Your task to perform on an android device: Search for duracell triple a on costco.com, select the first entry, and add it to the cart. Image 0: 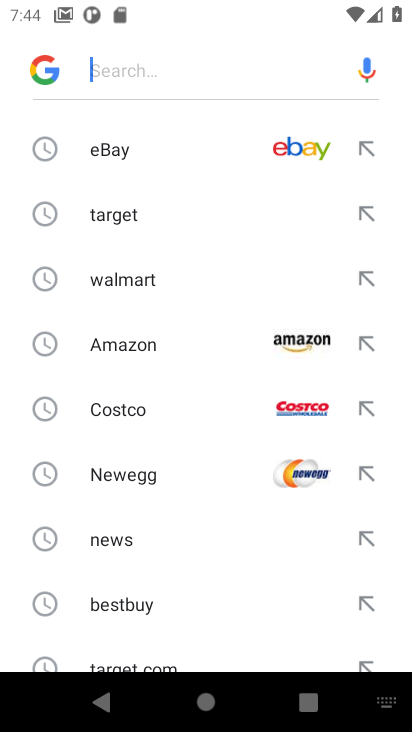
Step 0: click (159, 410)
Your task to perform on an android device: Search for duracell triple a on costco.com, select the first entry, and add it to the cart. Image 1: 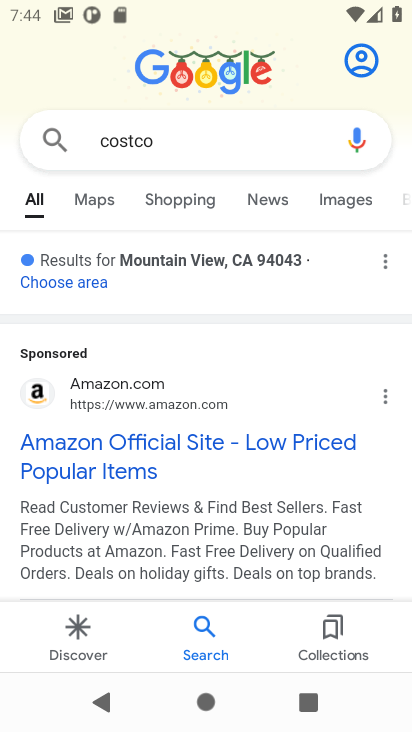
Step 1: drag from (169, 472) to (168, 197)
Your task to perform on an android device: Search for duracell triple a on costco.com, select the first entry, and add it to the cart. Image 2: 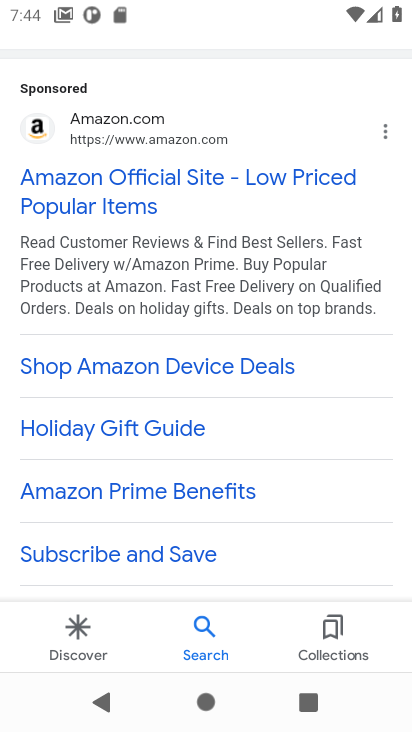
Step 2: drag from (197, 162) to (291, 721)
Your task to perform on an android device: Search for duracell triple a on costco.com, select the first entry, and add it to the cart. Image 3: 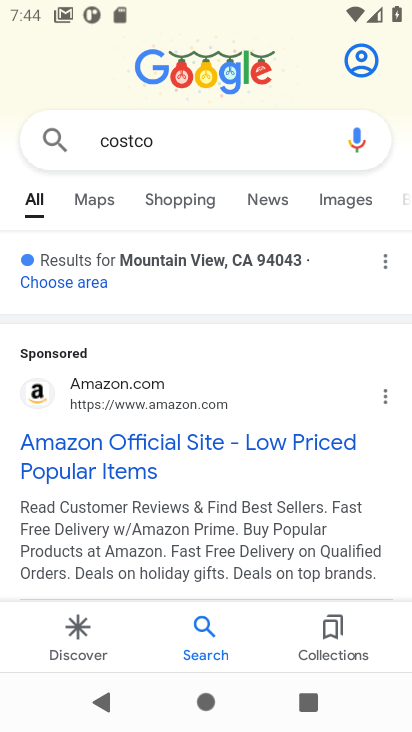
Step 3: click (197, 143)
Your task to perform on an android device: Search for duracell triple a on costco.com, select the first entry, and add it to the cart. Image 4: 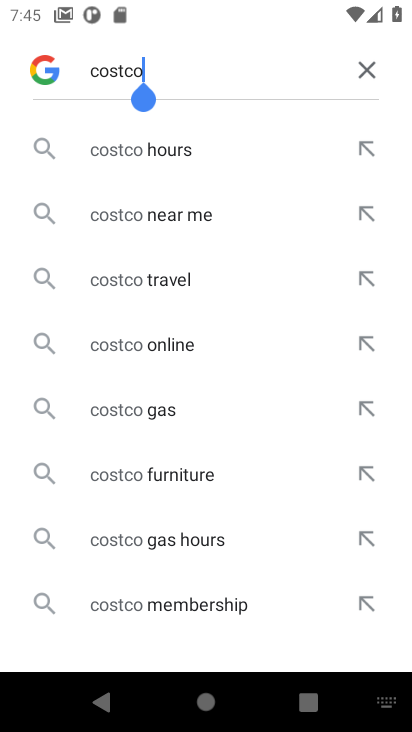
Step 4: click (148, 226)
Your task to perform on an android device: Search for duracell triple a on costco.com, select the first entry, and add it to the cart. Image 5: 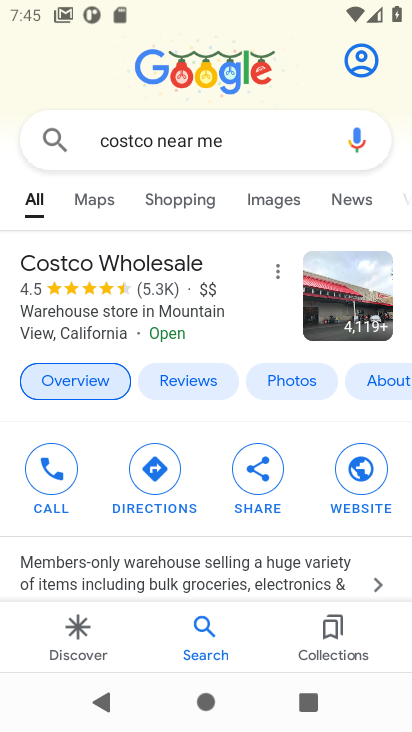
Step 5: click (364, 467)
Your task to perform on an android device: Search for duracell triple a on costco.com, select the first entry, and add it to the cart. Image 6: 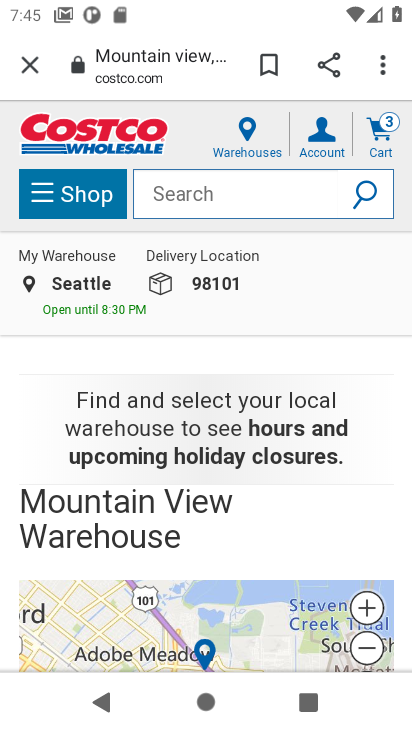
Step 6: drag from (140, 553) to (140, 465)
Your task to perform on an android device: Search for duracell triple a on costco.com, select the first entry, and add it to the cart. Image 7: 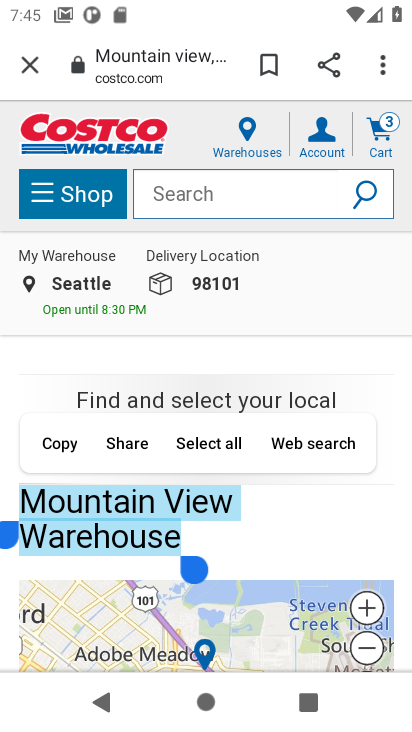
Step 7: click (192, 205)
Your task to perform on an android device: Search for duracell triple a on costco.com, select the first entry, and add it to the cart. Image 8: 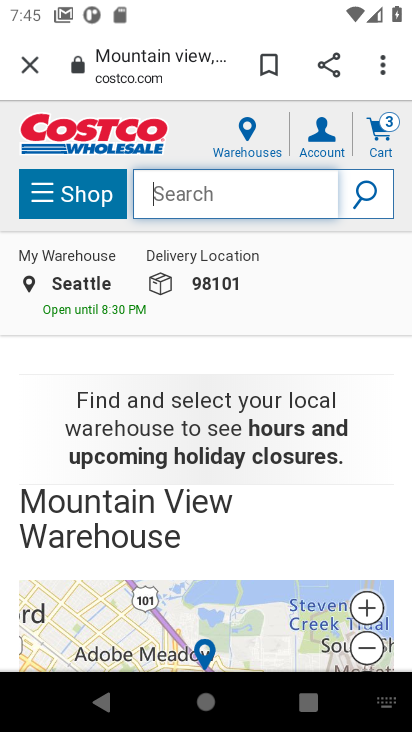
Step 8: type ""
Your task to perform on an android device: Search for duracell triple a on costco.com, select the first entry, and add it to the cart. Image 9: 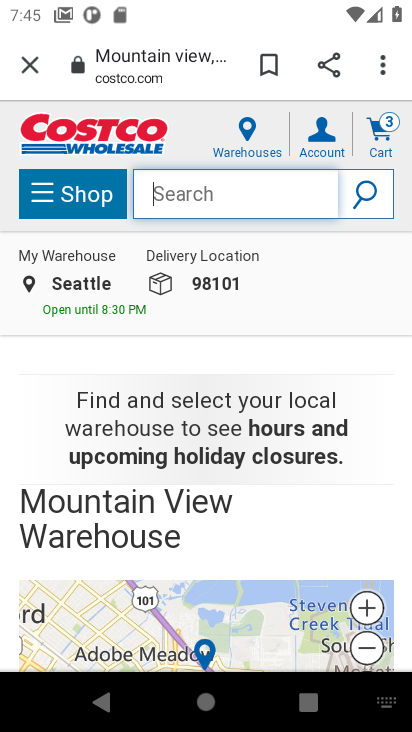
Step 9: type "duracell"
Your task to perform on an android device: Search for duracell triple a on costco.com, select the first entry, and add it to the cart. Image 10: 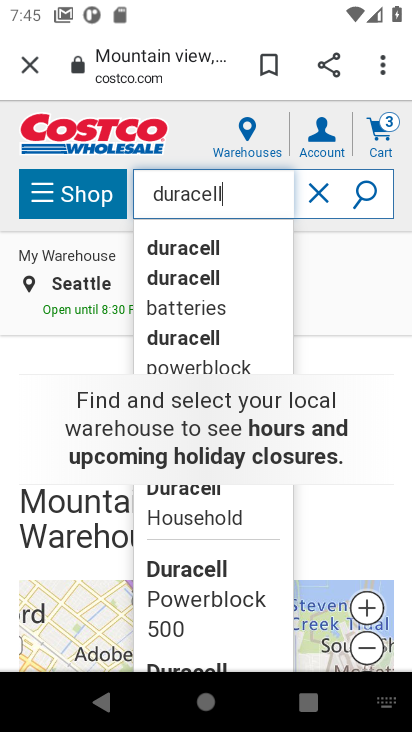
Step 10: type "triple"
Your task to perform on an android device: Search for duracell triple a on costco.com, select the first entry, and add it to the cart. Image 11: 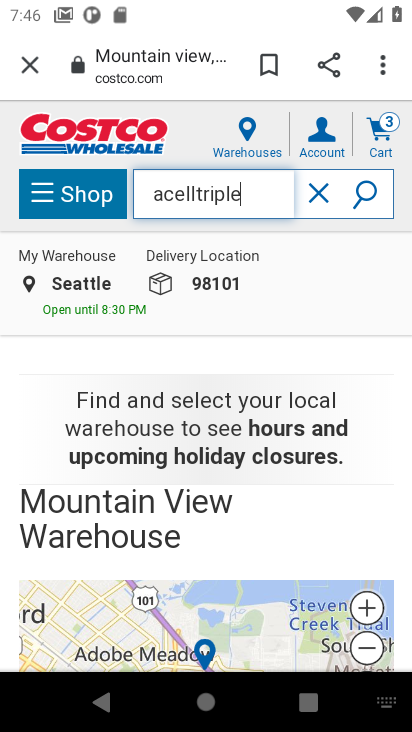
Step 11: click (362, 203)
Your task to perform on an android device: Search for duracell triple a on costco.com, select the first entry, and add it to the cart. Image 12: 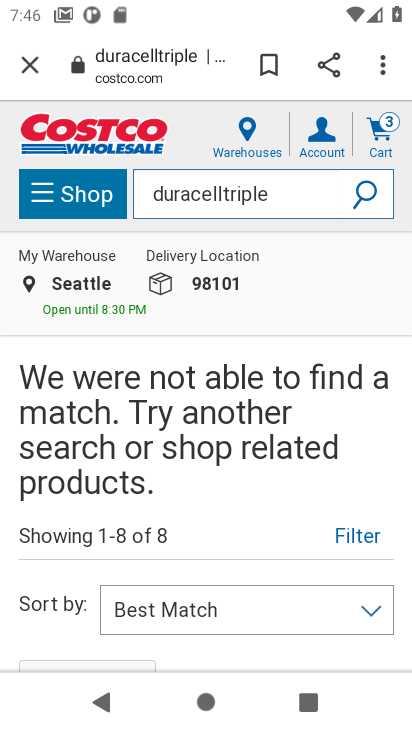
Step 12: task complete